Your task to perform on an android device: Go to accessibility settings Image 0: 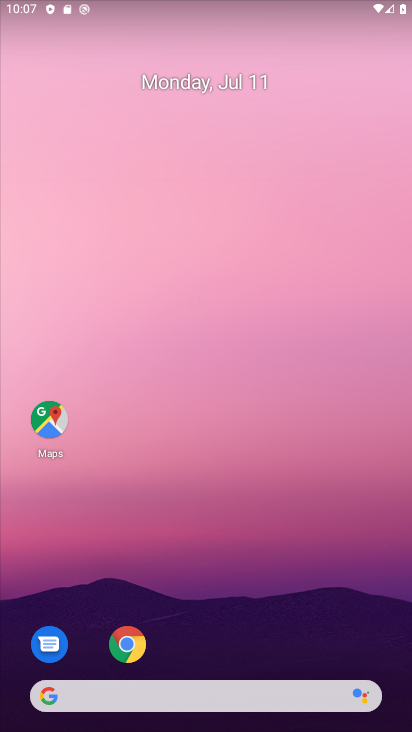
Step 0: drag from (255, 692) to (196, 298)
Your task to perform on an android device: Go to accessibility settings Image 1: 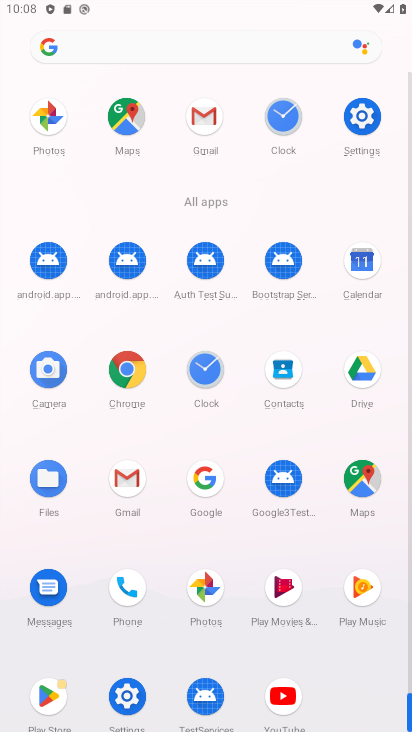
Step 1: click (368, 107)
Your task to perform on an android device: Go to accessibility settings Image 2: 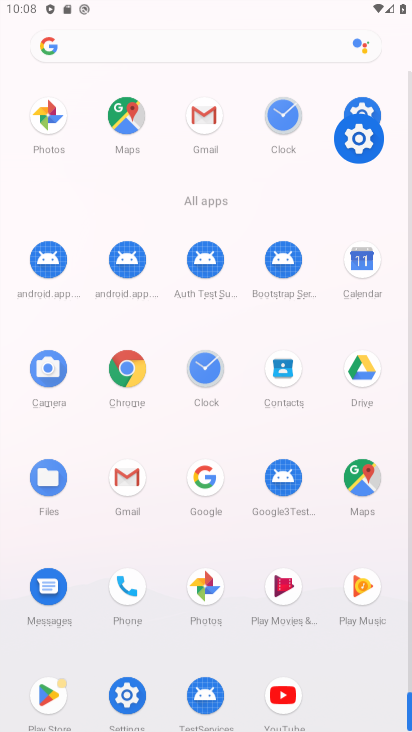
Step 2: click (366, 110)
Your task to perform on an android device: Go to accessibility settings Image 3: 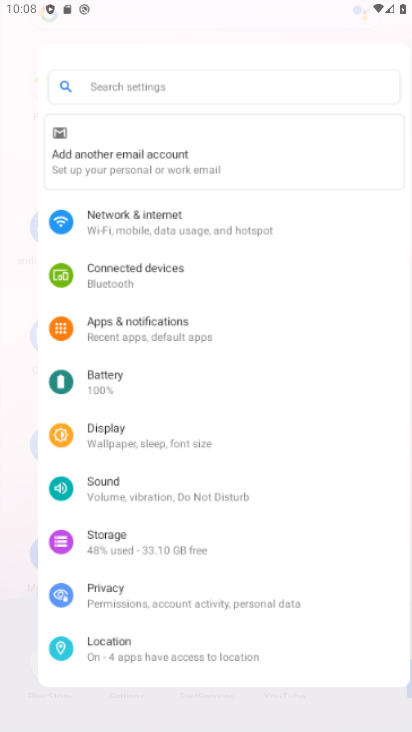
Step 3: click (357, 128)
Your task to perform on an android device: Go to accessibility settings Image 4: 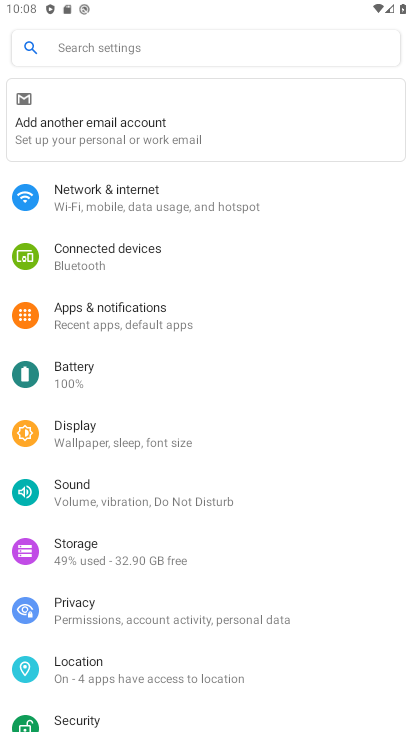
Step 4: drag from (183, 607) to (162, 193)
Your task to perform on an android device: Go to accessibility settings Image 5: 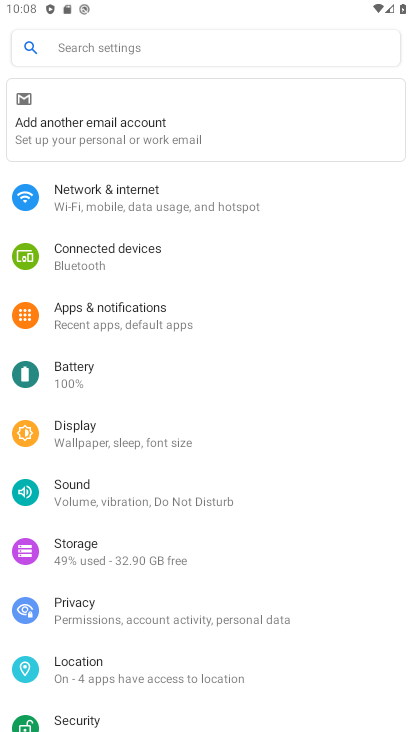
Step 5: click (190, 396)
Your task to perform on an android device: Go to accessibility settings Image 6: 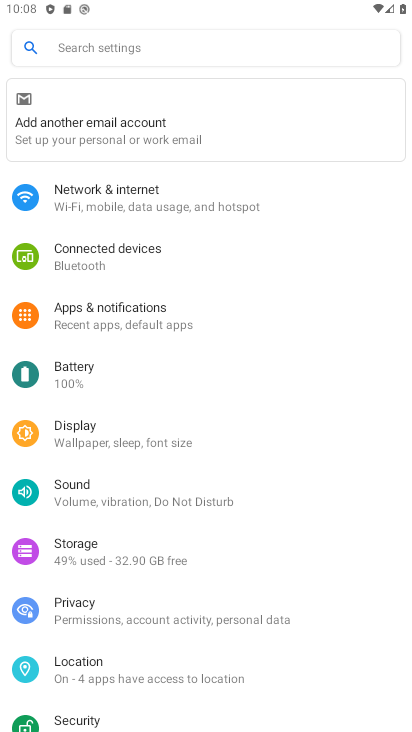
Step 6: drag from (202, 194) to (227, 269)
Your task to perform on an android device: Go to accessibility settings Image 7: 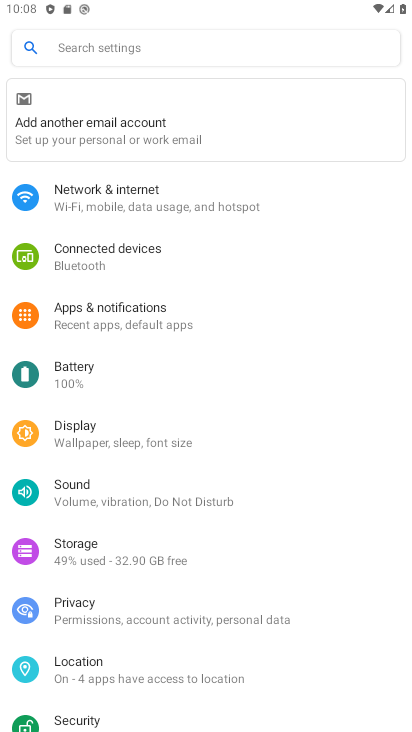
Step 7: drag from (98, 317) to (53, 190)
Your task to perform on an android device: Go to accessibility settings Image 8: 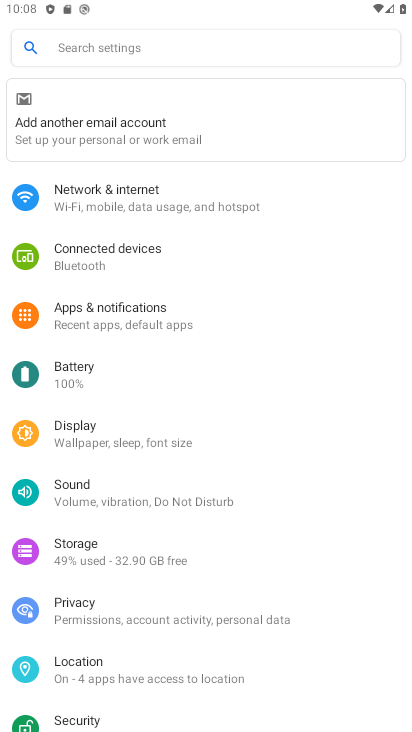
Step 8: click (86, 146)
Your task to perform on an android device: Go to accessibility settings Image 9: 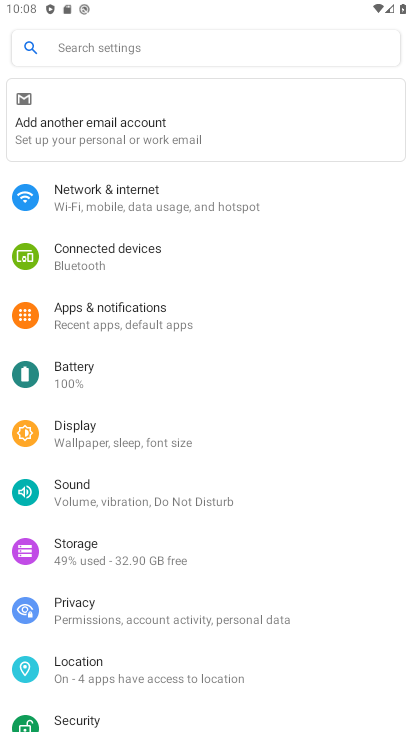
Step 9: drag from (155, 593) to (215, 268)
Your task to perform on an android device: Go to accessibility settings Image 10: 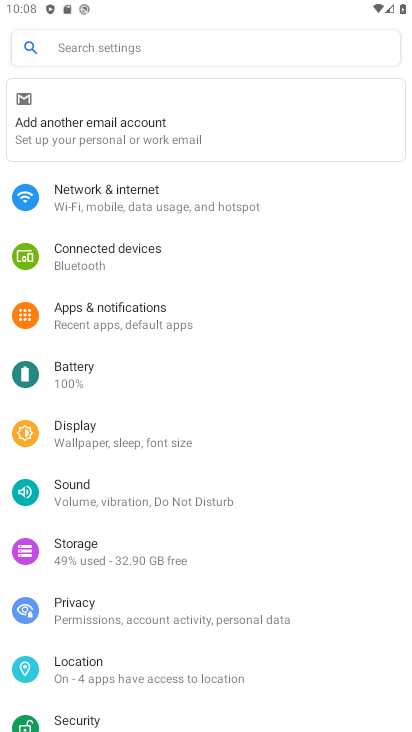
Step 10: drag from (181, 223) to (205, 38)
Your task to perform on an android device: Go to accessibility settings Image 11: 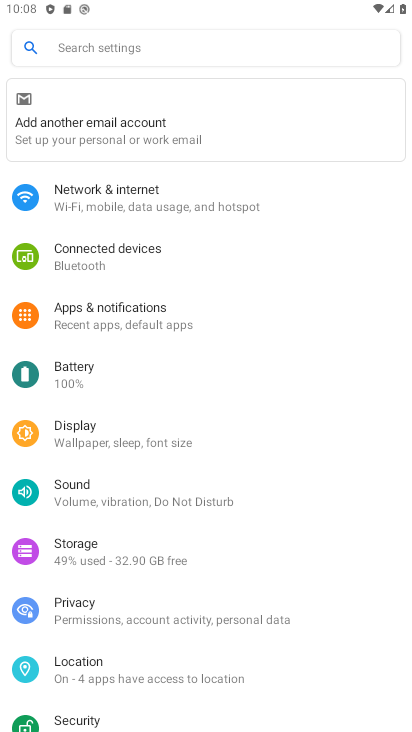
Step 11: drag from (115, 608) to (120, 156)
Your task to perform on an android device: Go to accessibility settings Image 12: 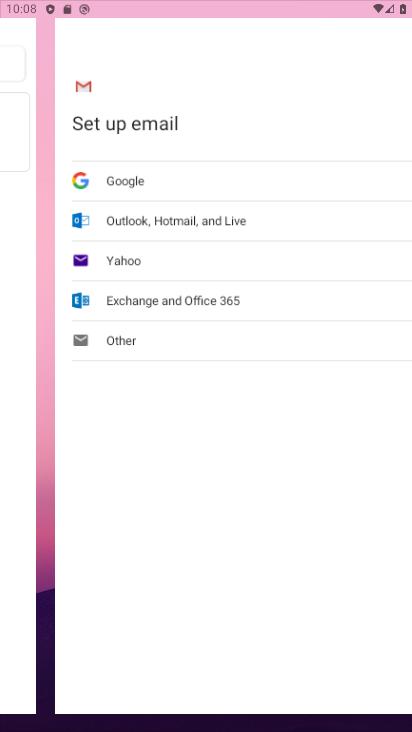
Step 12: drag from (254, 537) to (210, 122)
Your task to perform on an android device: Go to accessibility settings Image 13: 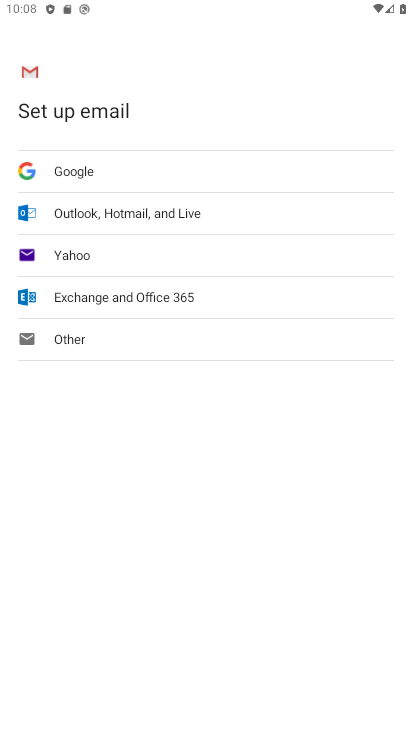
Step 13: drag from (242, 510) to (195, 129)
Your task to perform on an android device: Go to accessibility settings Image 14: 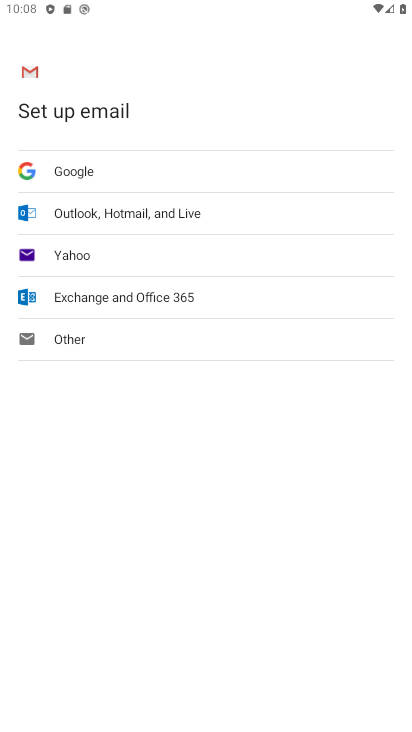
Step 14: press back button
Your task to perform on an android device: Go to accessibility settings Image 15: 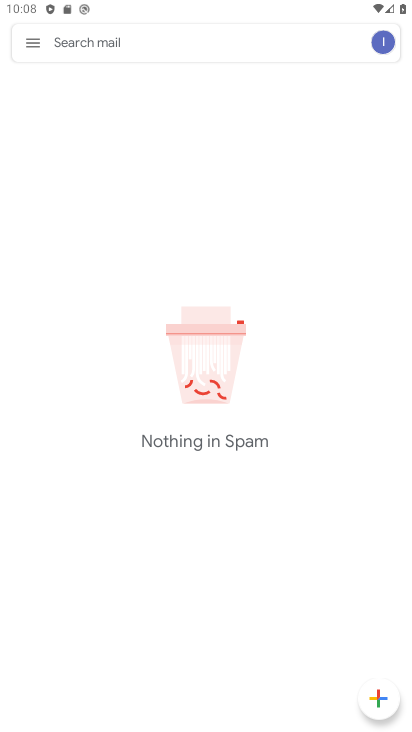
Step 15: press back button
Your task to perform on an android device: Go to accessibility settings Image 16: 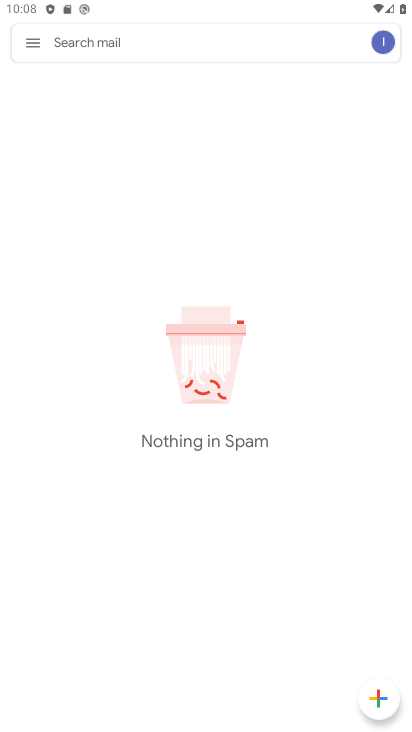
Step 16: press home button
Your task to perform on an android device: Go to accessibility settings Image 17: 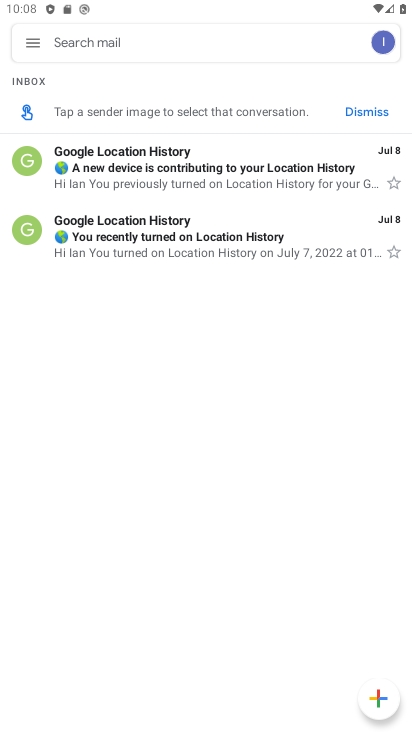
Step 17: press home button
Your task to perform on an android device: Go to accessibility settings Image 18: 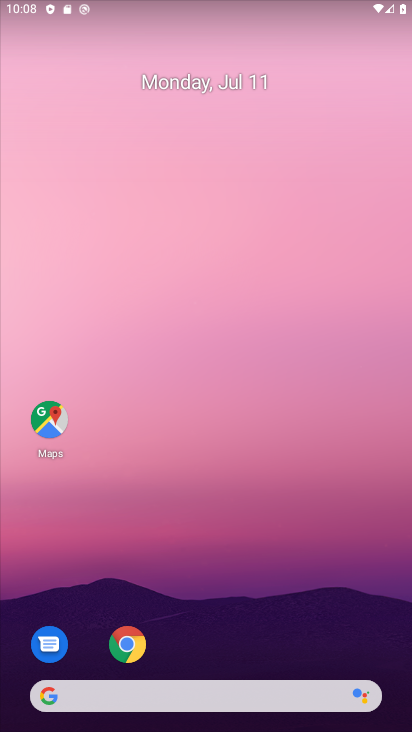
Step 18: drag from (194, 628) to (161, 69)
Your task to perform on an android device: Go to accessibility settings Image 19: 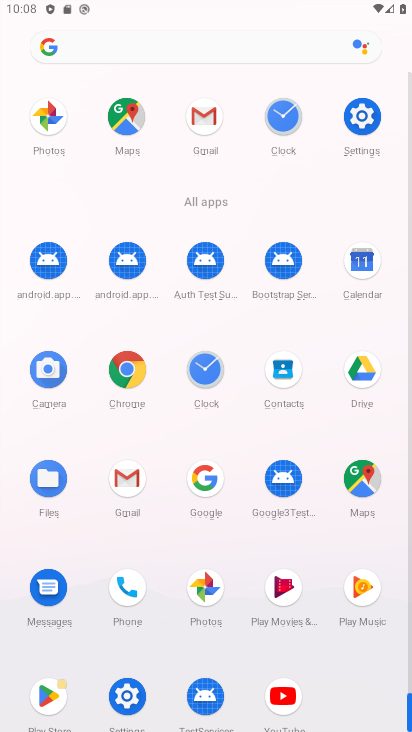
Step 19: click (130, 698)
Your task to perform on an android device: Go to accessibility settings Image 20: 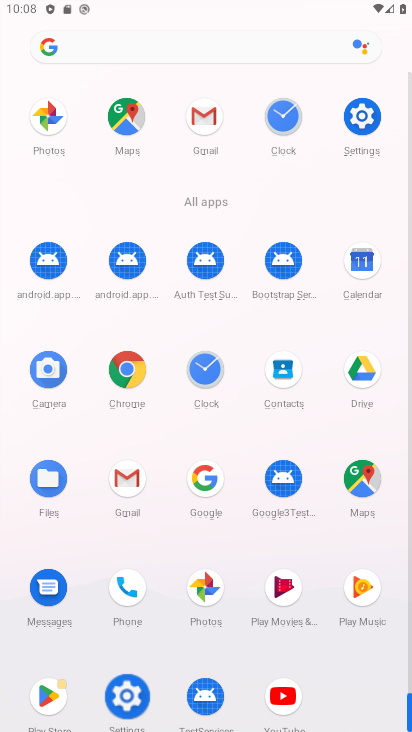
Step 20: click (130, 698)
Your task to perform on an android device: Go to accessibility settings Image 21: 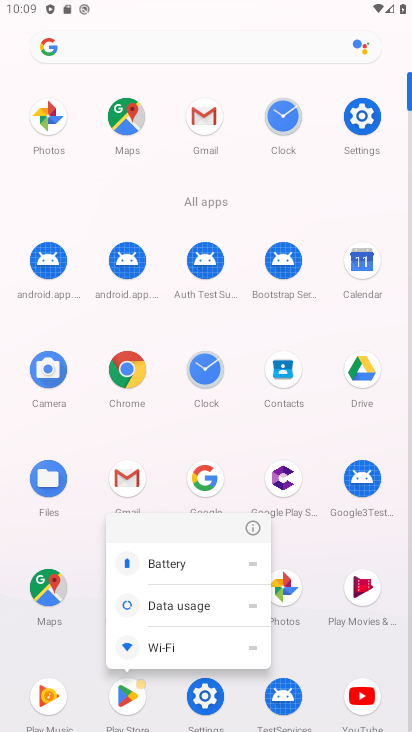
Step 21: press back button
Your task to perform on an android device: Go to accessibility settings Image 22: 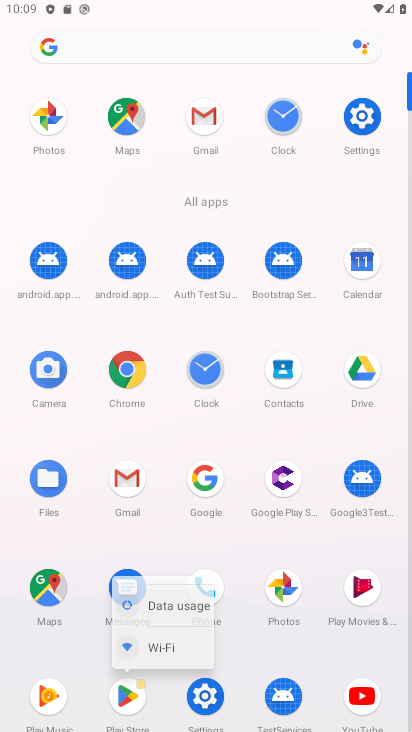
Step 22: press back button
Your task to perform on an android device: Go to accessibility settings Image 23: 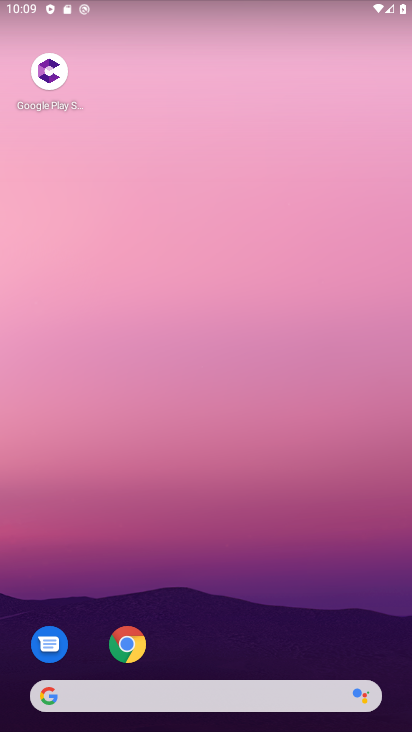
Step 23: drag from (206, 538) to (130, 126)
Your task to perform on an android device: Go to accessibility settings Image 24: 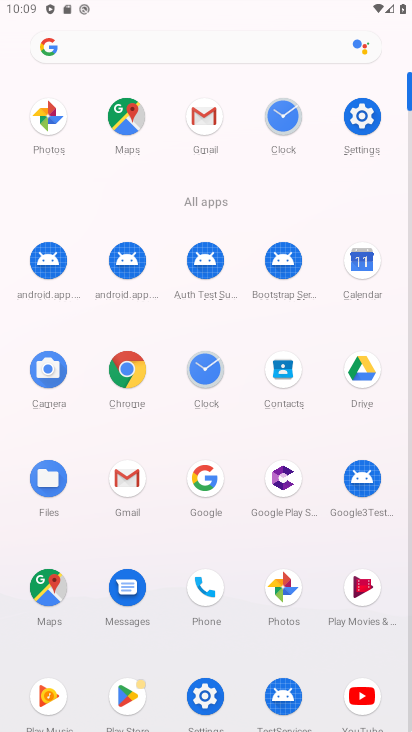
Step 24: click (370, 107)
Your task to perform on an android device: Go to accessibility settings Image 25: 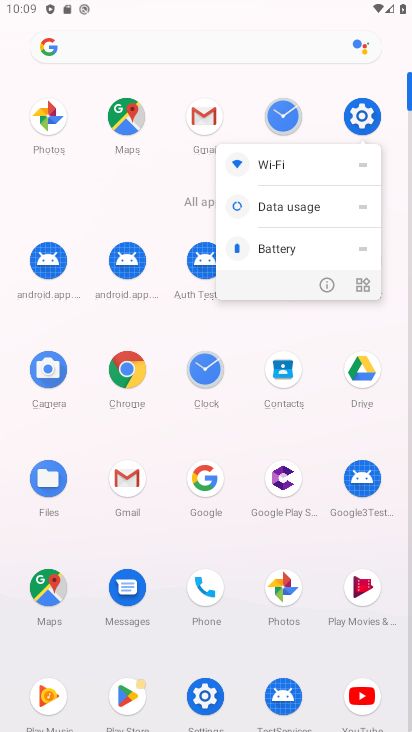
Step 25: click (355, 106)
Your task to perform on an android device: Go to accessibility settings Image 26: 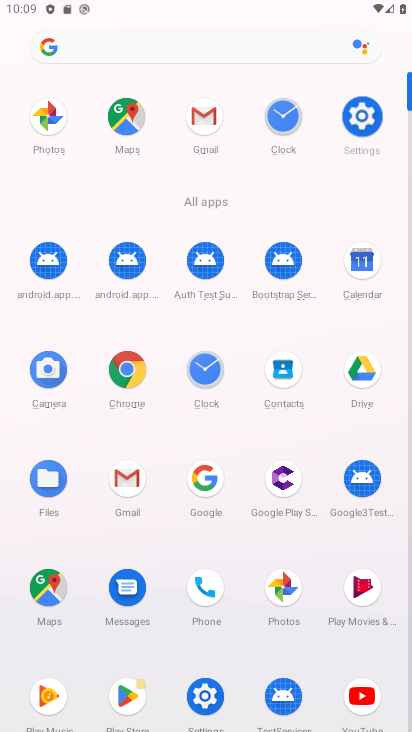
Step 26: click (355, 106)
Your task to perform on an android device: Go to accessibility settings Image 27: 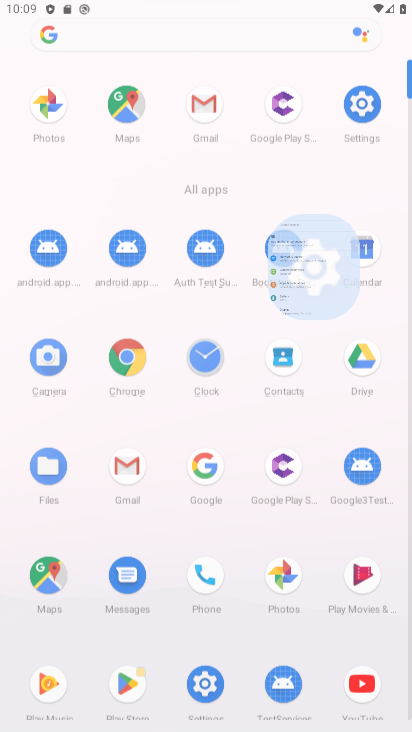
Step 27: click (355, 106)
Your task to perform on an android device: Go to accessibility settings Image 28: 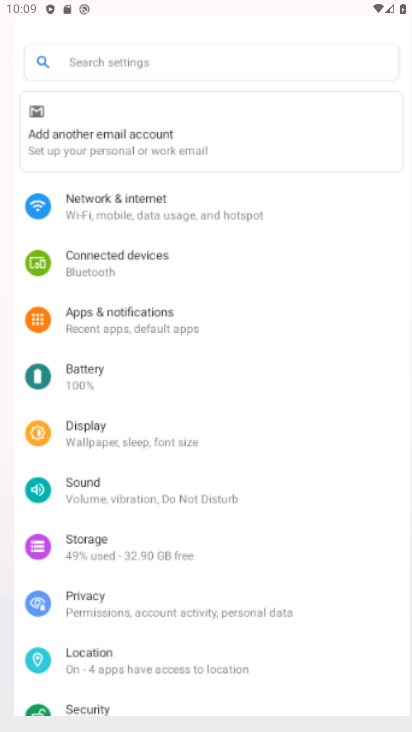
Step 28: click (354, 107)
Your task to perform on an android device: Go to accessibility settings Image 29: 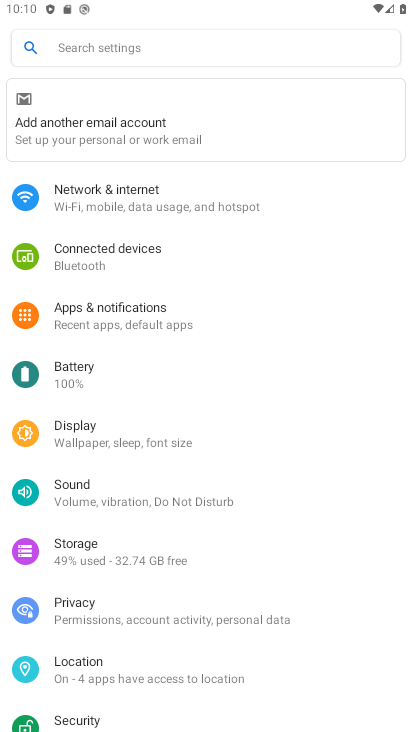
Step 29: drag from (215, 451) to (178, 183)
Your task to perform on an android device: Go to accessibility settings Image 30: 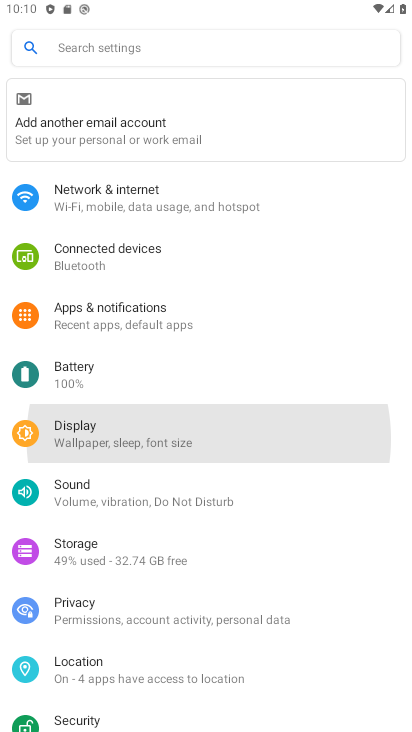
Step 30: drag from (248, 510) to (217, 284)
Your task to perform on an android device: Go to accessibility settings Image 31: 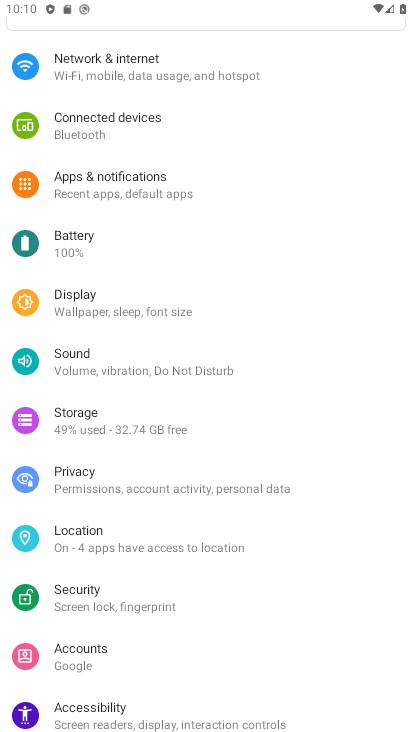
Step 31: drag from (189, 568) to (201, 276)
Your task to perform on an android device: Go to accessibility settings Image 32: 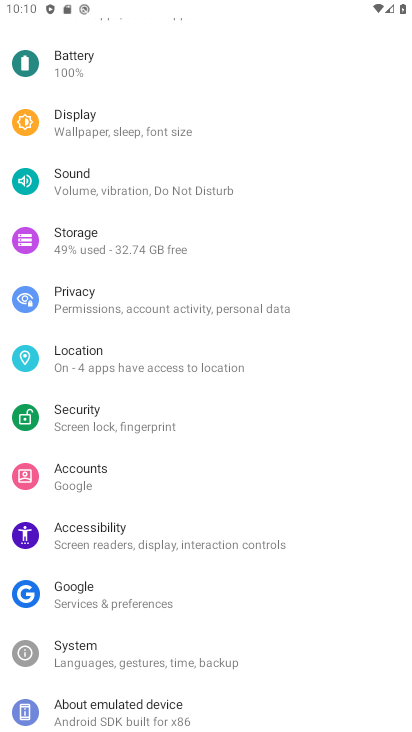
Step 32: drag from (157, 564) to (147, 371)
Your task to perform on an android device: Go to accessibility settings Image 33: 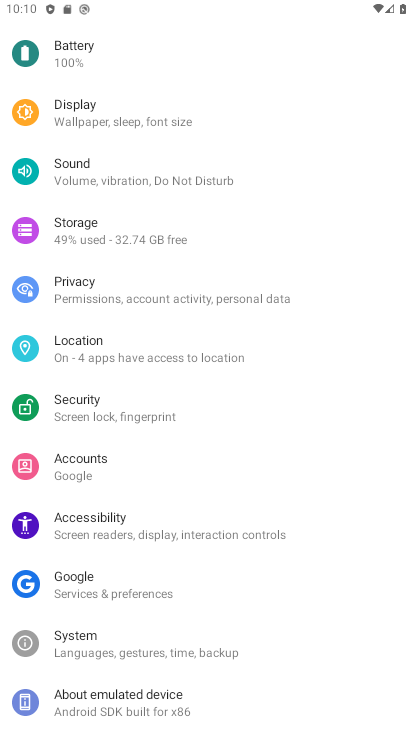
Step 33: click (79, 520)
Your task to perform on an android device: Go to accessibility settings Image 34: 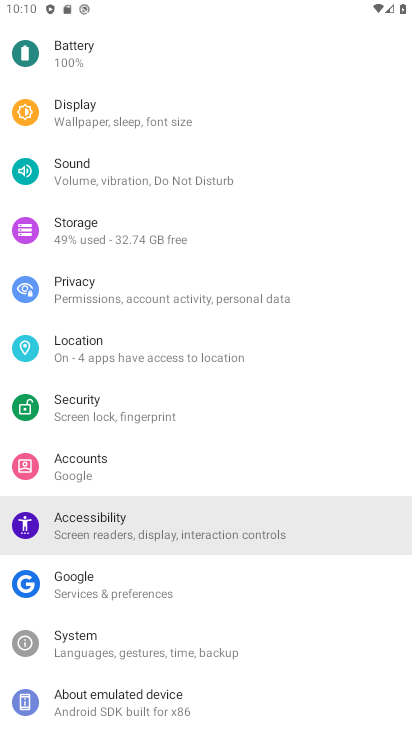
Step 34: click (80, 521)
Your task to perform on an android device: Go to accessibility settings Image 35: 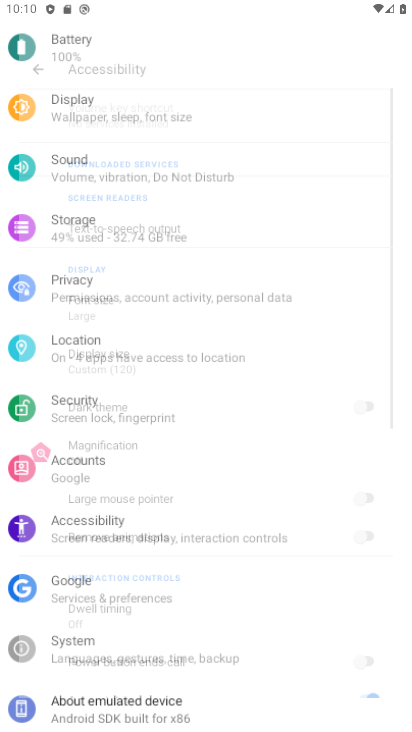
Step 35: click (80, 521)
Your task to perform on an android device: Go to accessibility settings Image 36: 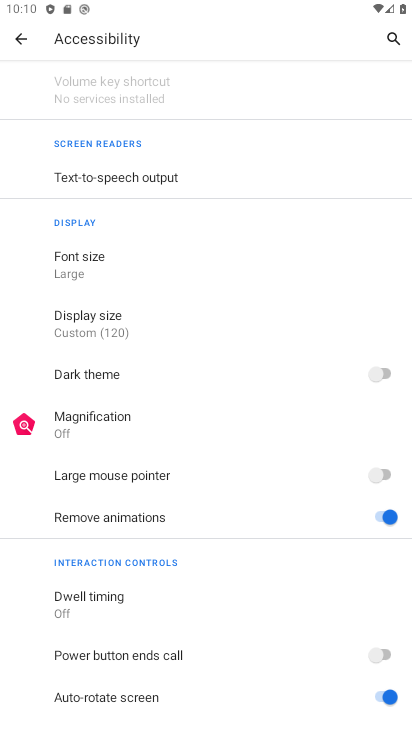
Step 36: task complete